Your task to perform on an android device: toggle sleep mode Image 0: 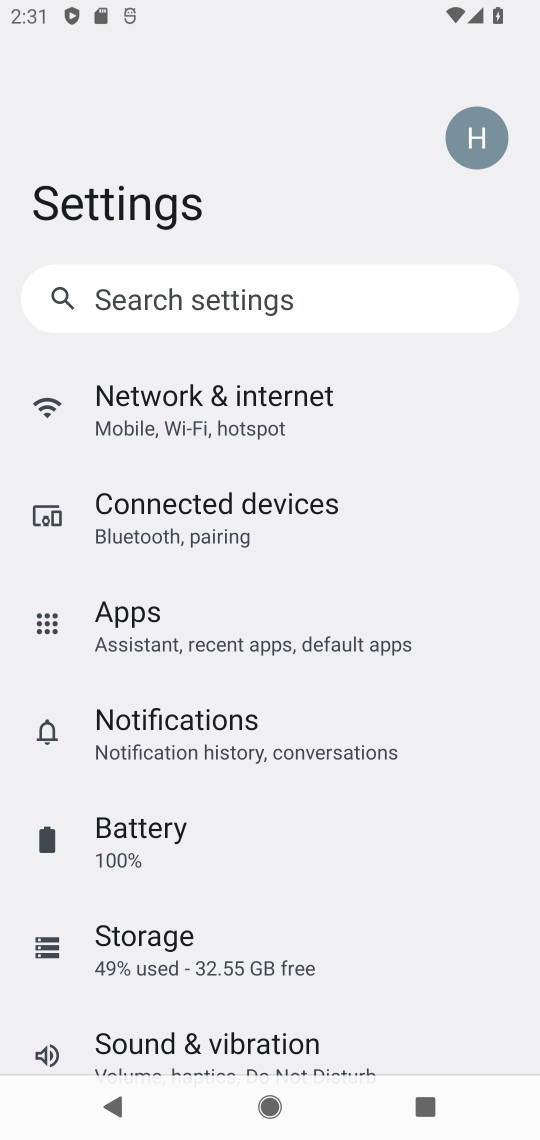
Step 0: drag from (246, 1004) to (406, 316)
Your task to perform on an android device: toggle sleep mode Image 1: 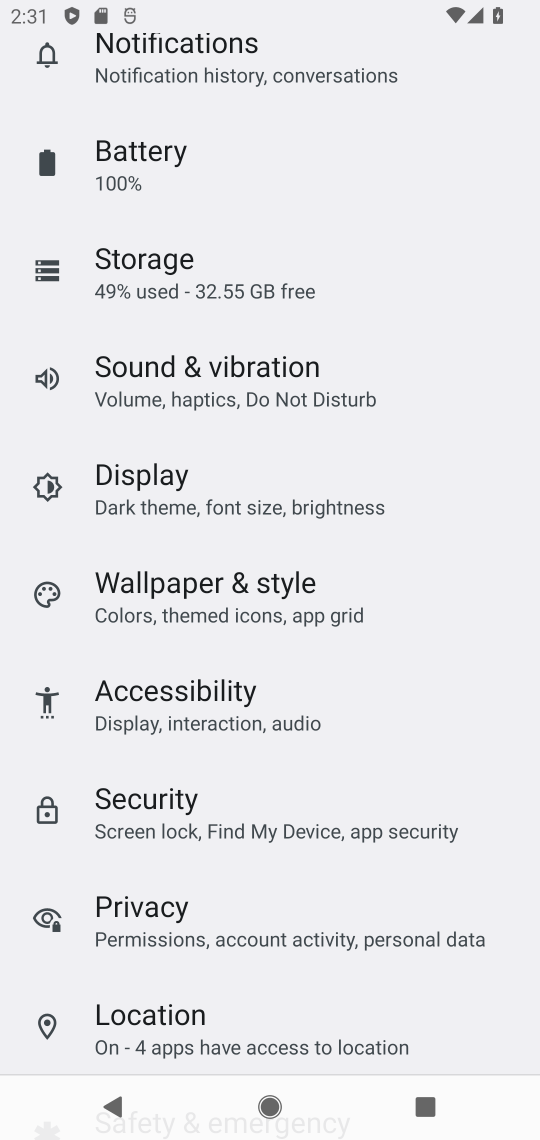
Step 1: task complete